Your task to perform on an android device: Go to CNN.com Image 0: 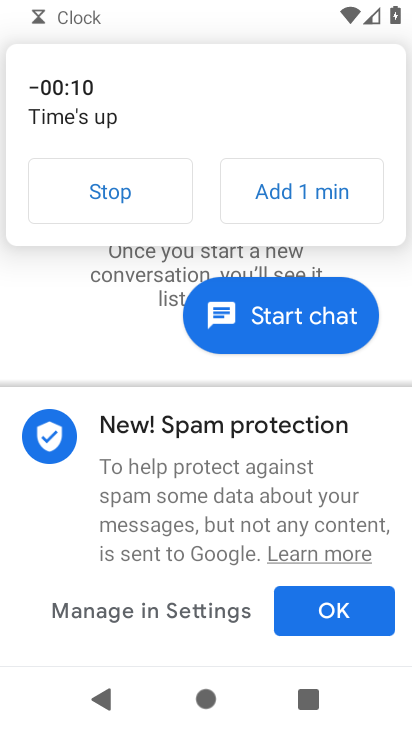
Step 0: press home button
Your task to perform on an android device: Go to CNN.com Image 1: 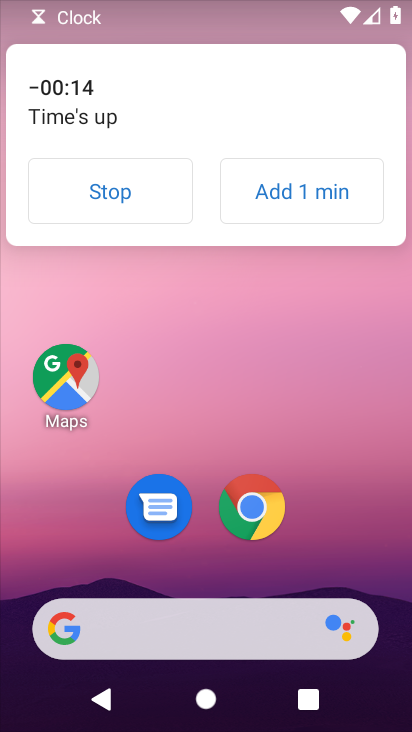
Step 1: click (247, 493)
Your task to perform on an android device: Go to CNN.com Image 2: 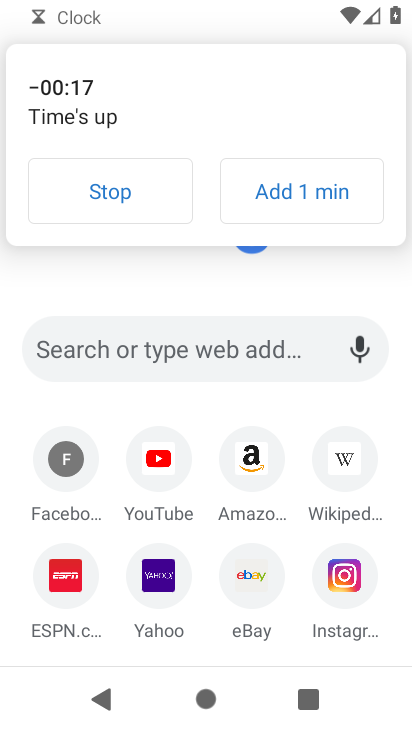
Step 2: click (160, 189)
Your task to perform on an android device: Go to CNN.com Image 3: 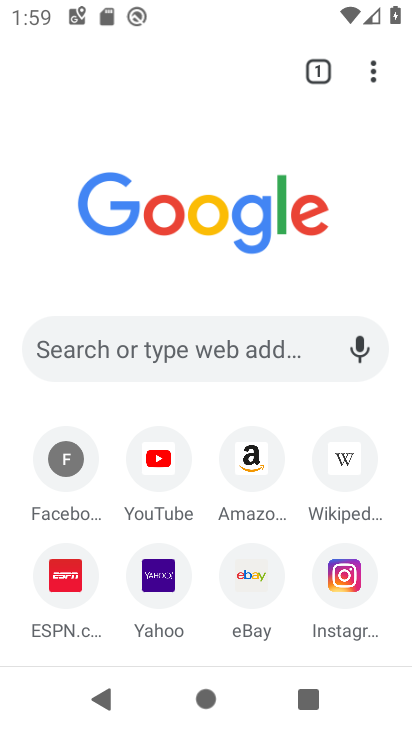
Step 3: click (185, 353)
Your task to perform on an android device: Go to CNN.com Image 4: 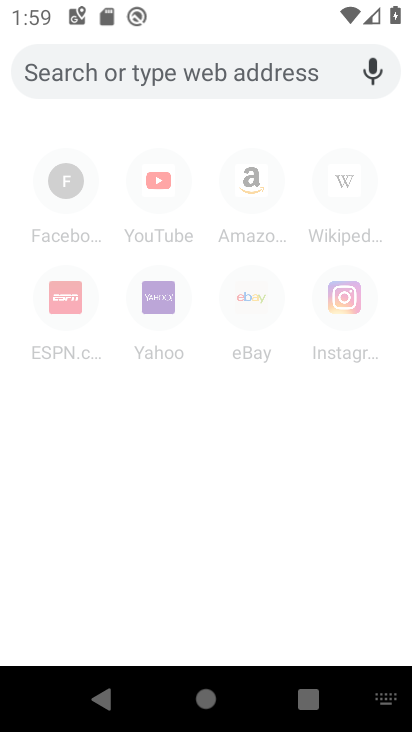
Step 4: type "CNN.com"
Your task to perform on an android device: Go to CNN.com Image 5: 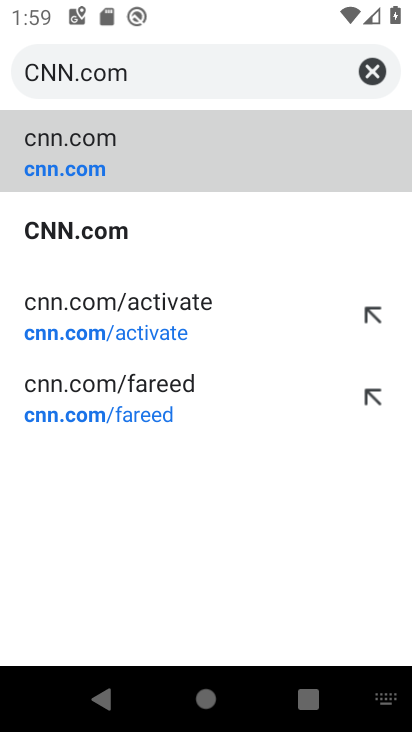
Step 5: click (135, 176)
Your task to perform on an android device: Go to CNN.com Image 6: 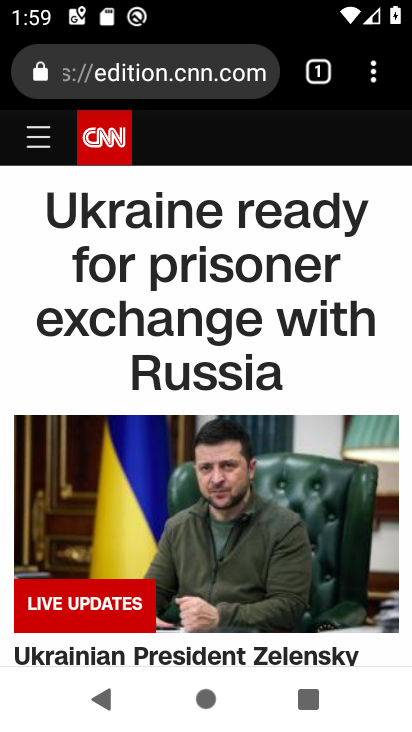
Step 6: task complete